Your task to perform on an android device: refresh tabs in the chrome app Image 0: 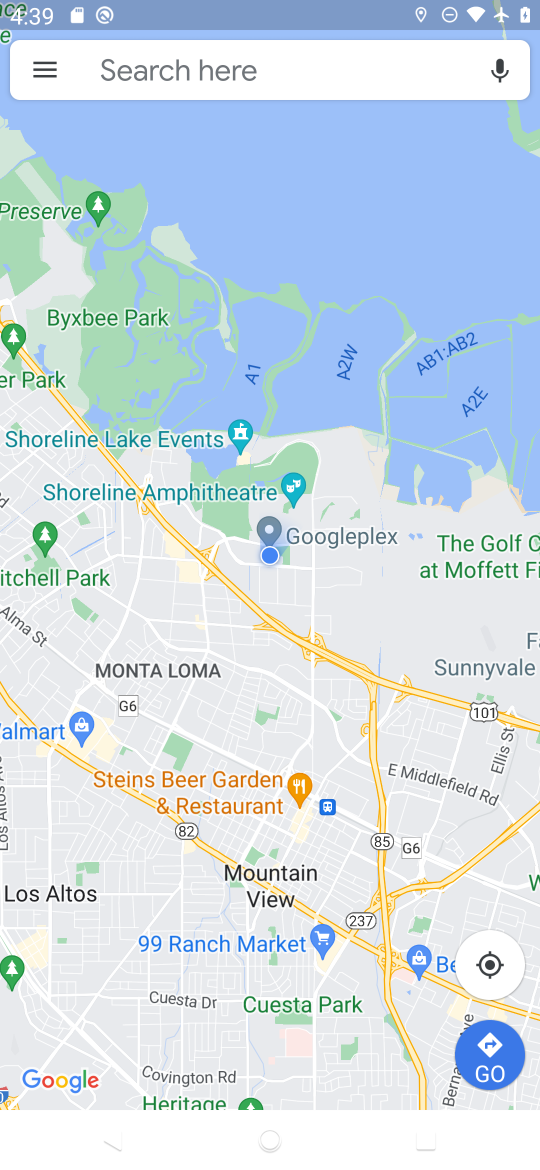
Step 0: press home button
Your task to perform on an android device: refresh tabs in the chrome app Image 1: 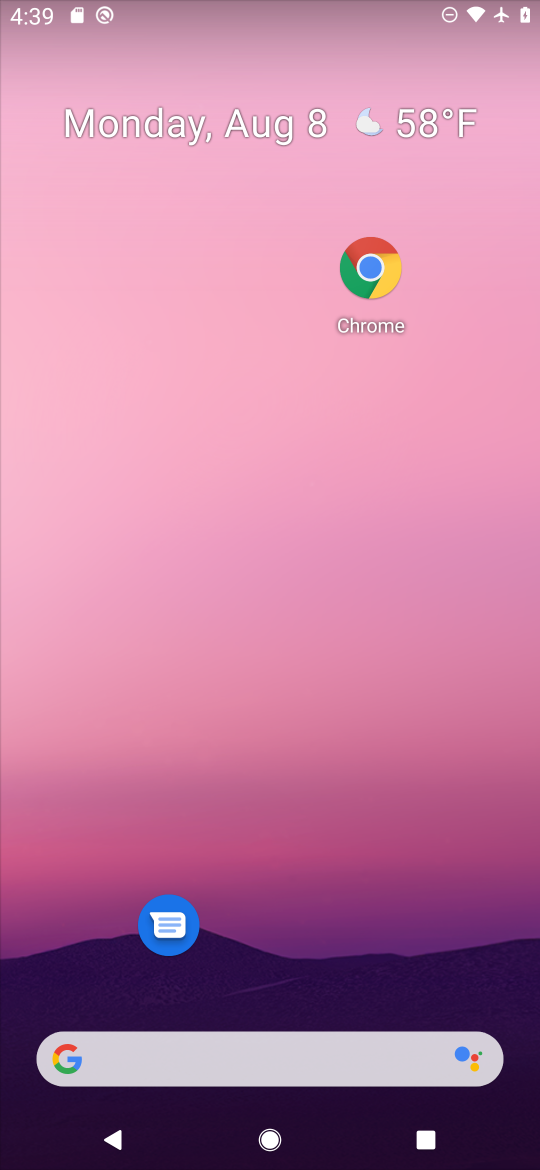
Step 1: drag from (252, 833) to (256, 117)
Your task to perform on an android device: refresh tabs in the chrome app Image 2: 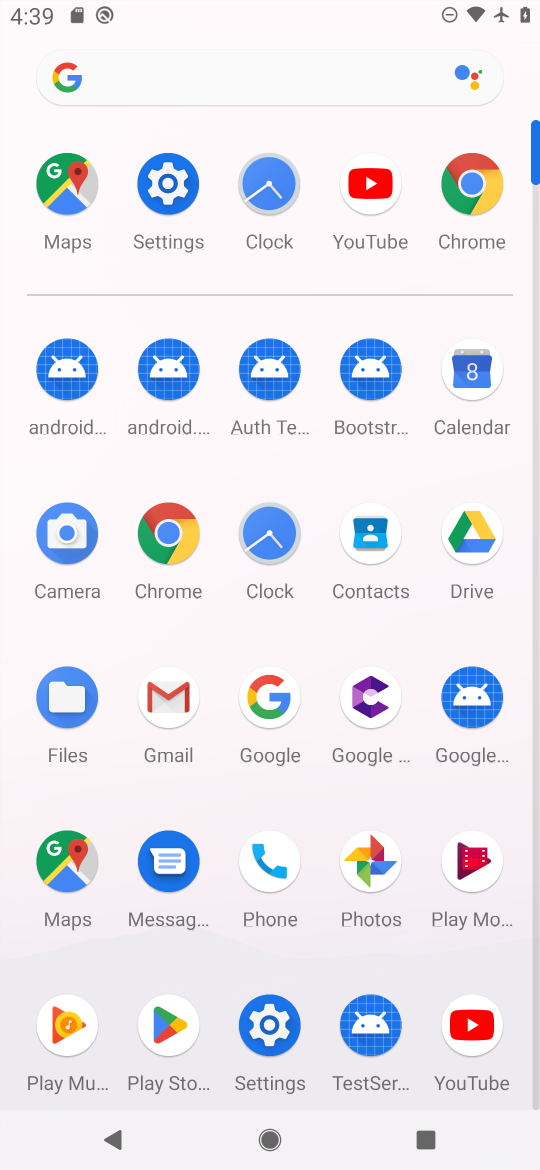
Step 2: click (480, 181)
Your task to perform on an android device: refresh tabs in the chrome app Image 3: 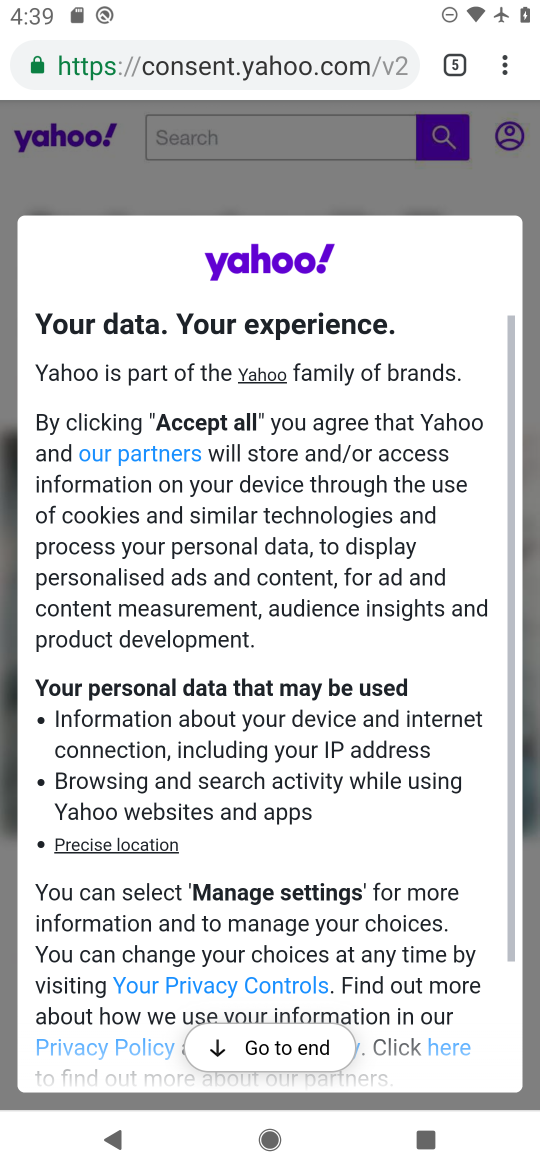
Step 3: click (509, 75)
Your task to perform on an android device: refresh tabs in the chrome app Image 4: 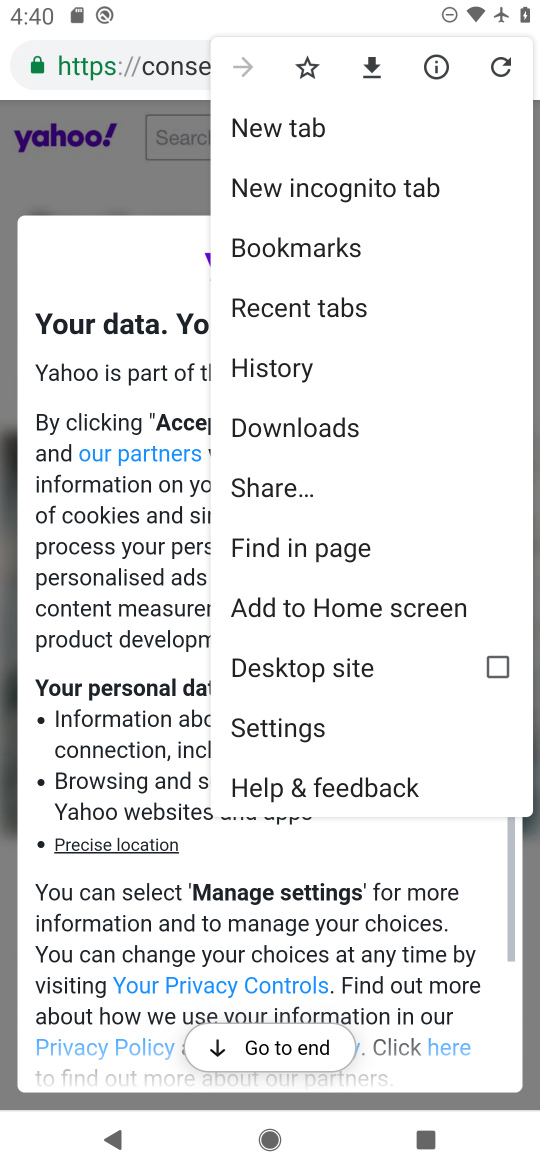
Step 4: click (501, 61)
Your task to perform on an android device: refresh tabs in the chrome app Image 5: 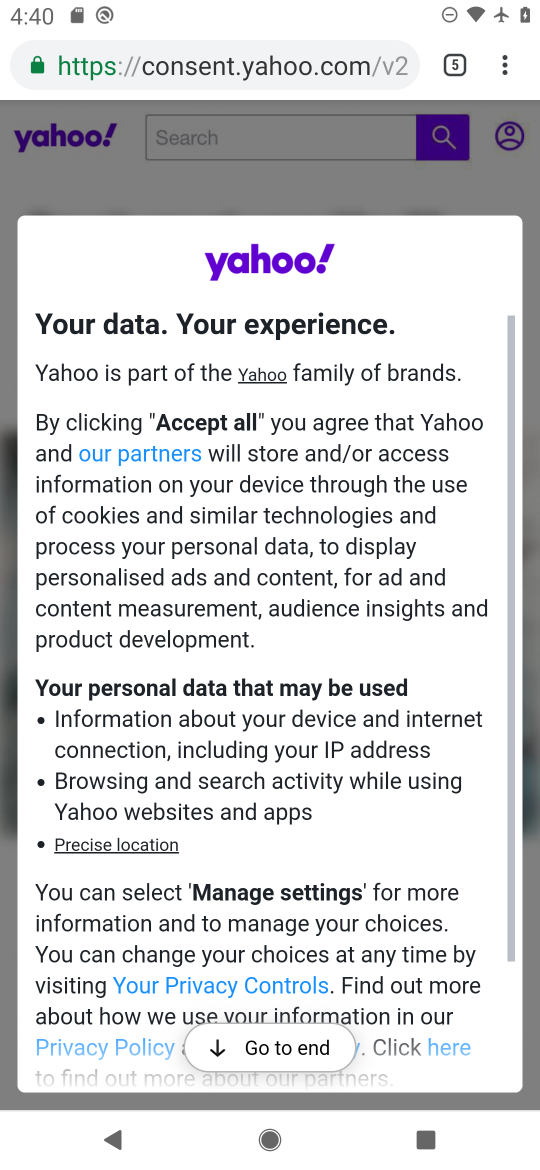
Step 5: task complete